Your task to perform on an android device: turn off notifications settings in the gmail app Image 0: 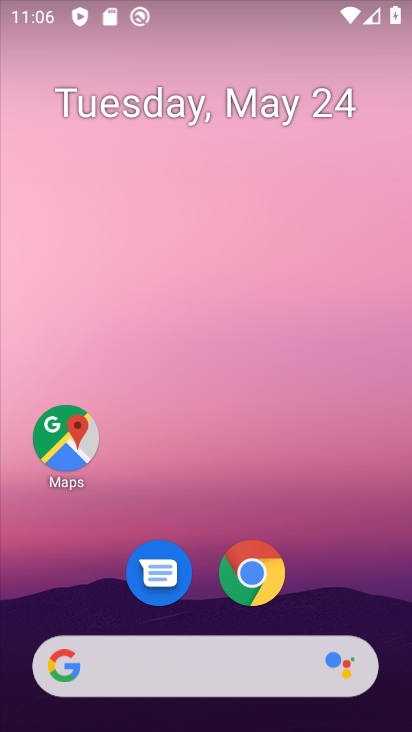
Step 0: drag from (82, 595) to (212, 156)
Your task to perform on an android device: turn off notifications settings in the gmail app Image 1: 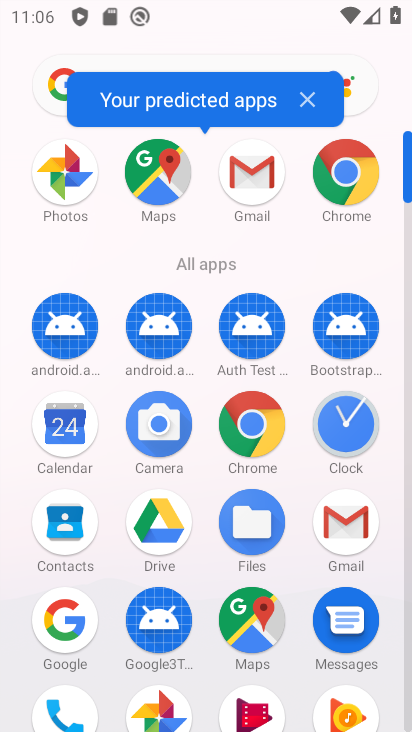
Step 1: click (337, 506)
Your task to perform on an android device: turn off notifications settings in the gmail app Image 2: 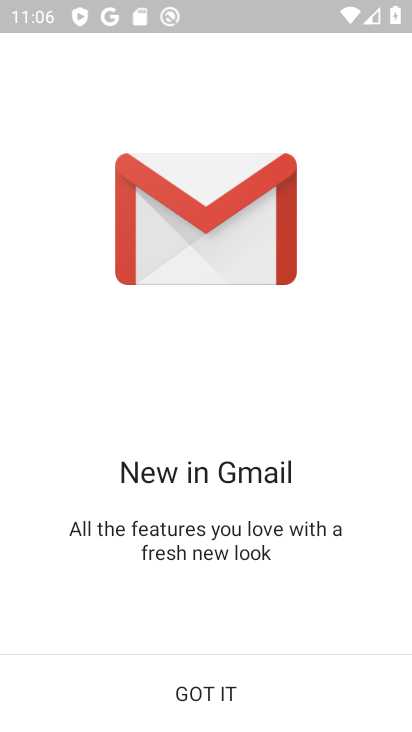
Step 2: click (276, 709)
Your task to perform on an android device: turn off notifications settings in the gmail app Image 3: 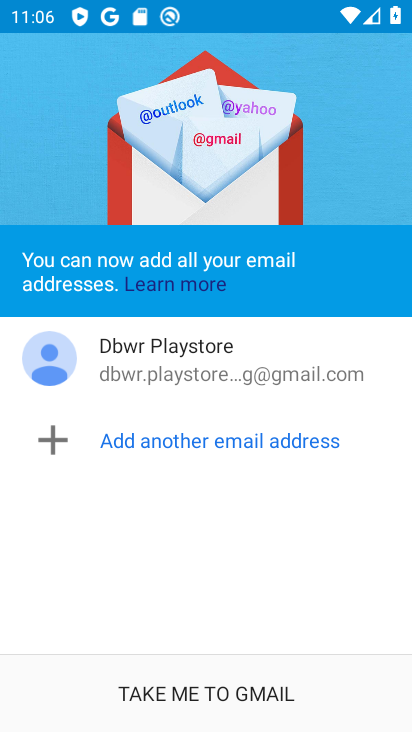
Step 3: click (276, 709)
Your task to perform on an android device: turn off notifications settings in the gmail app Image 4: 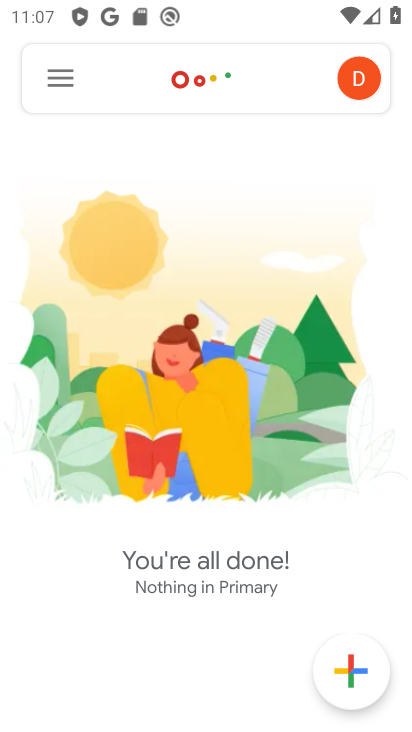
Step 4: click (56, 76)
Your task to perform on an android device: turn off notifications settings in the gmail app Image 5: 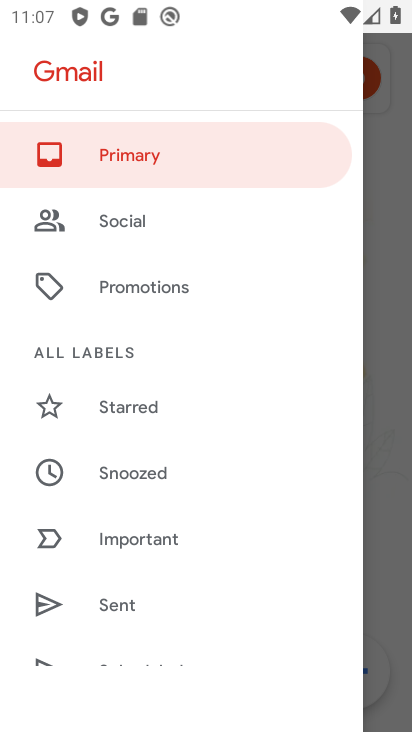
Step 5: drag from (164, 619) to (272, 220)
Your task to perform on an android device: turn off notifications settings in the gmail app Image 6: 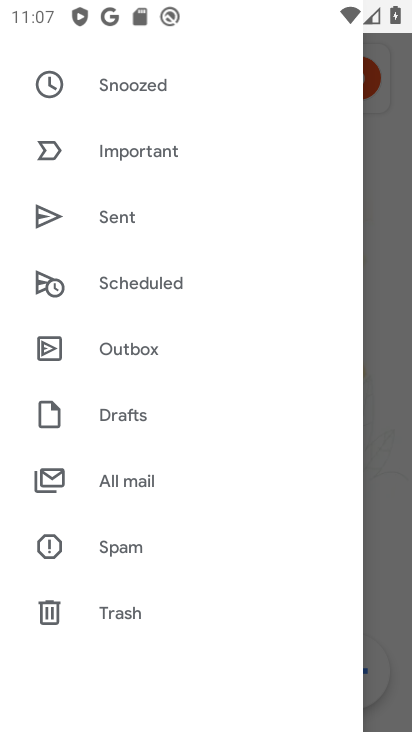
Step 6: drag from (125, 559) to (278, 191)
Your task to perform on an android device: turn off notifications settings in the gmail app Image 7: 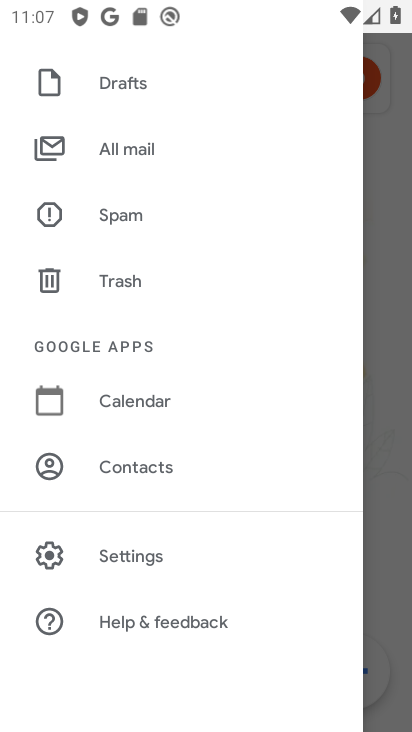
Step 7: click (157, 541)
Your task to perform on an android device: turn off notifications settings in the gmail app Image 8: 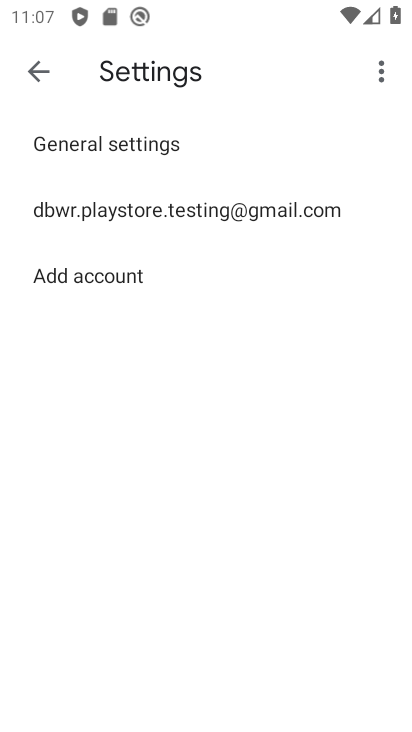
Step 8: click (235, 230)
Your task to perform on an android device: turn off notifications settings in the gmail app Image 9: 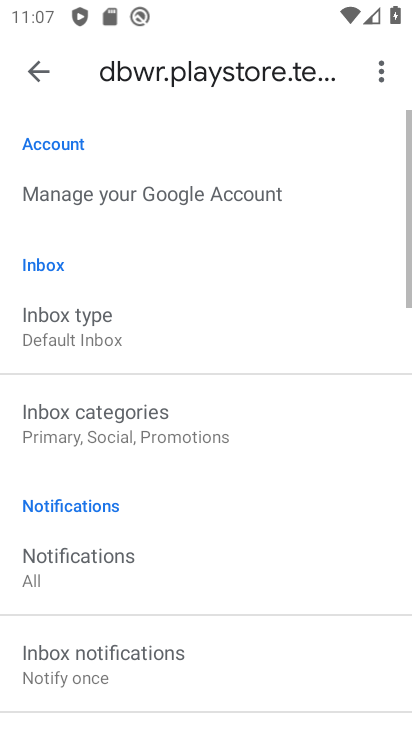
Step 9: drag from (158, 645) to (275, 163)
Your task to perform on an android device: turn off notifications settings in the gmail app Image 10: 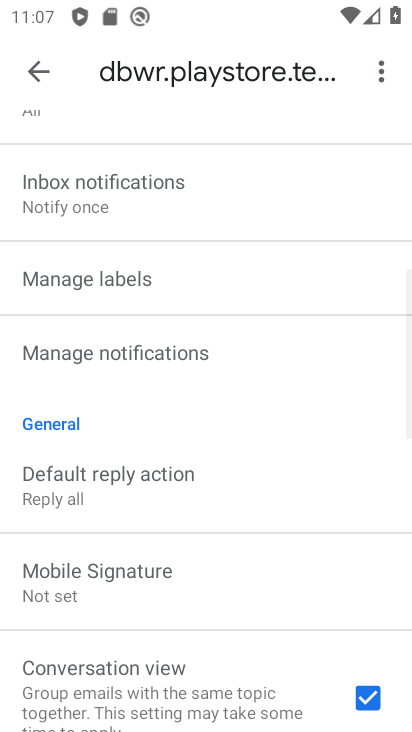
Step 10: click (155, 353)
Your task to perform on an android device: turn off notifications settings in the gmail app Image 11: 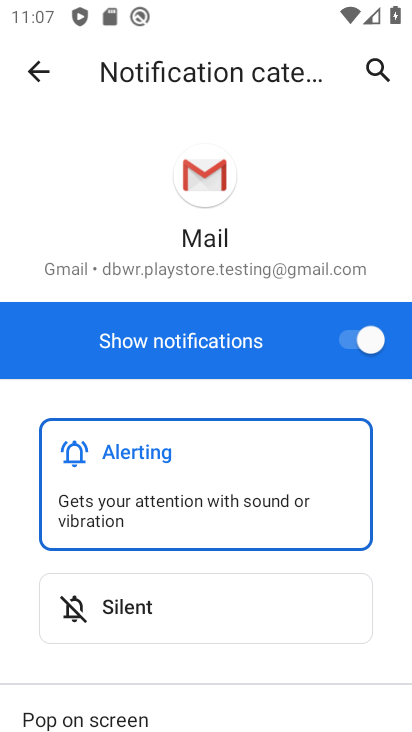
Step 11: click (341, 345)
Your task to perform on an android device: turn off notifications settings in the gmail app Image 12: 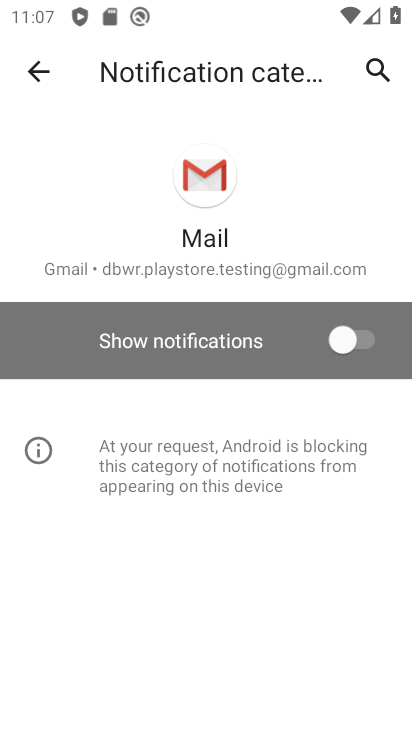
Step 12: task complete